Your task to perform on an android device: uninstall "Paramount+ | Peak Streaming" Image 0: 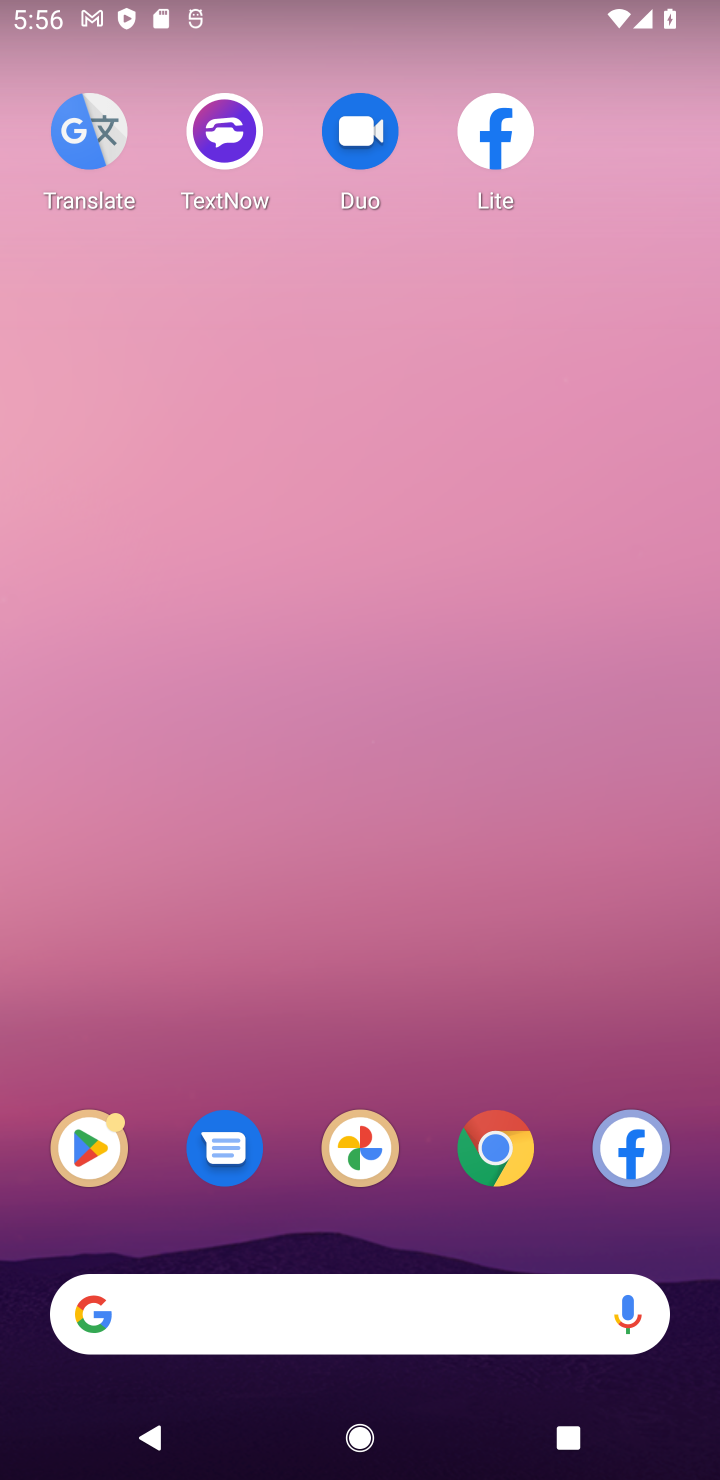
Step 0: drag from (553, 1067) to (204, 113)
Your task to perform on an android device: uninstall "Paramount+ | Peak Streaming" Image 1: 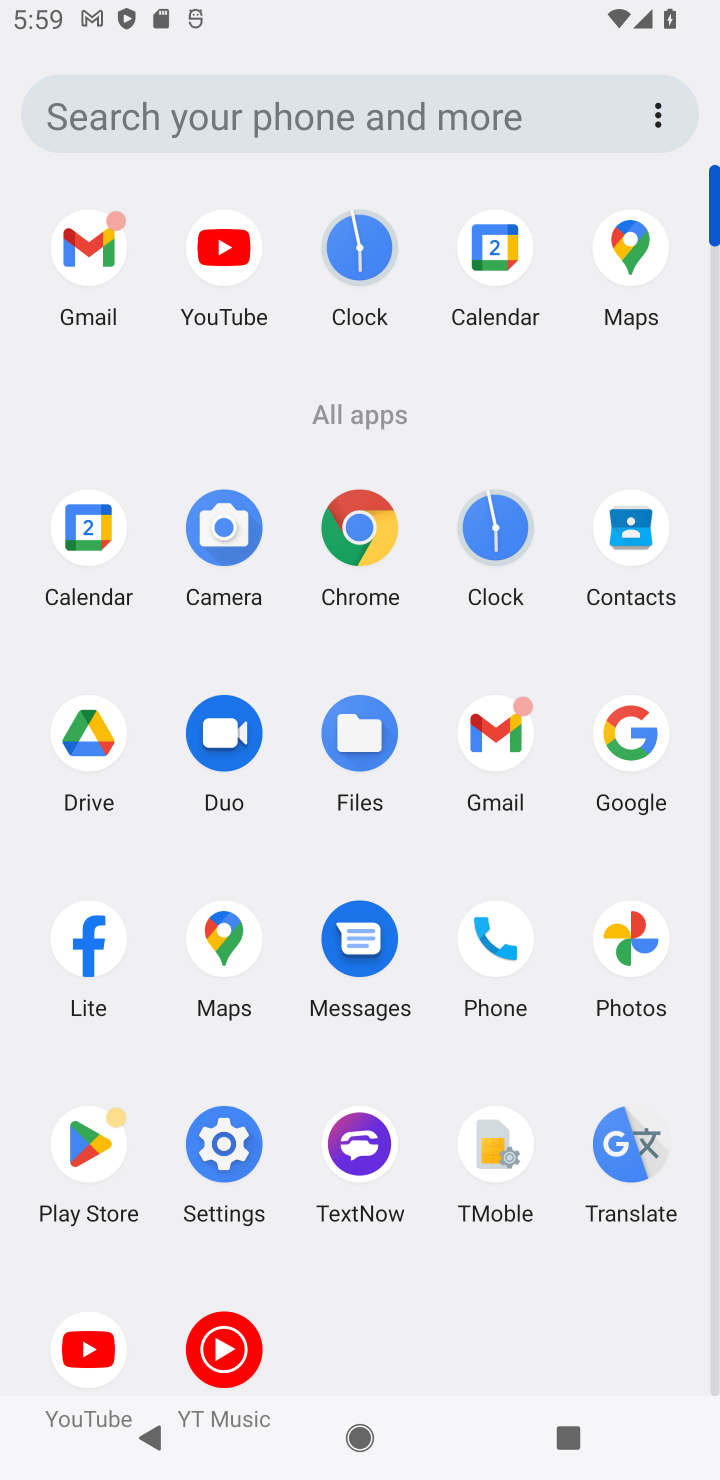
Step 1: click (86, 1125)
Your task to perform on an android device: uninstall "Paramount+ | Peak Streaming" Image 2: 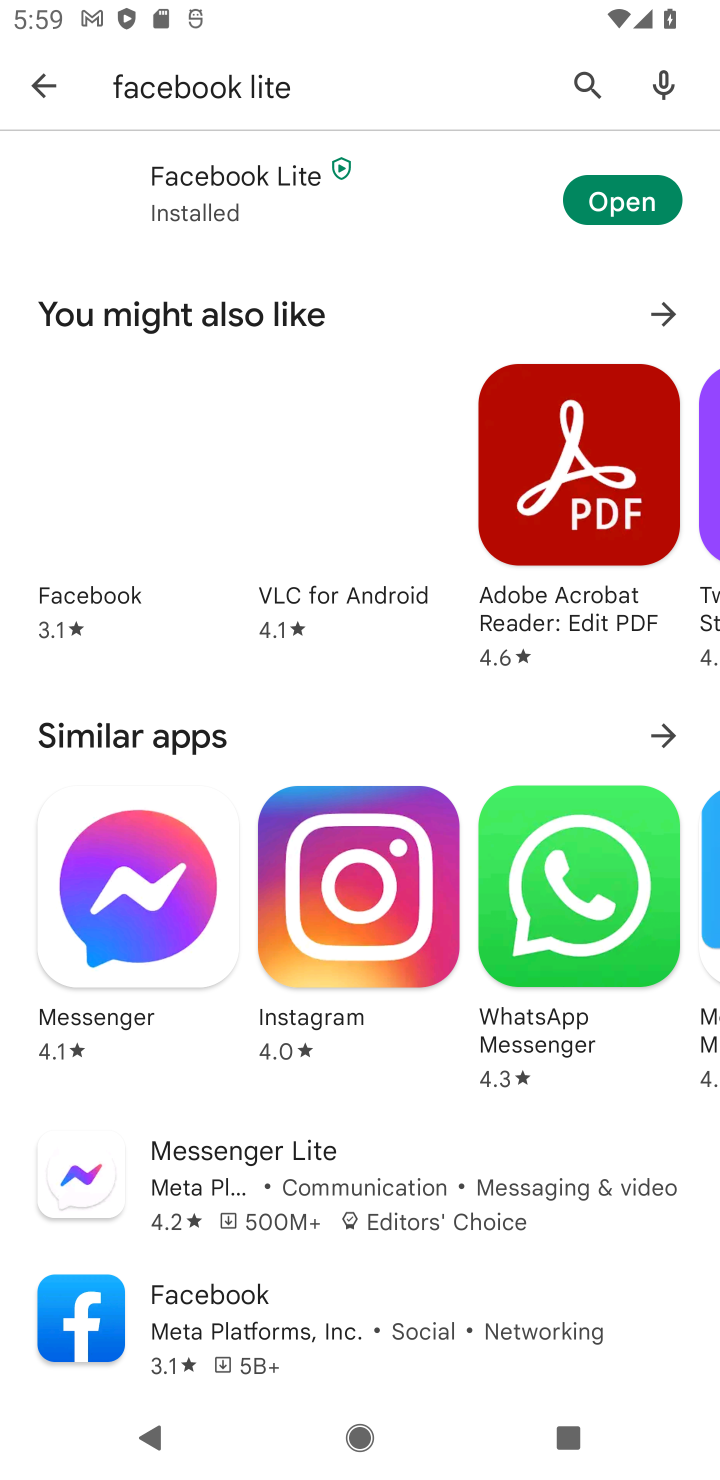
Step 2: press back button
Your task to perform on an android device: uninstall "Paramount+ | Peak Streaming" Image 3: 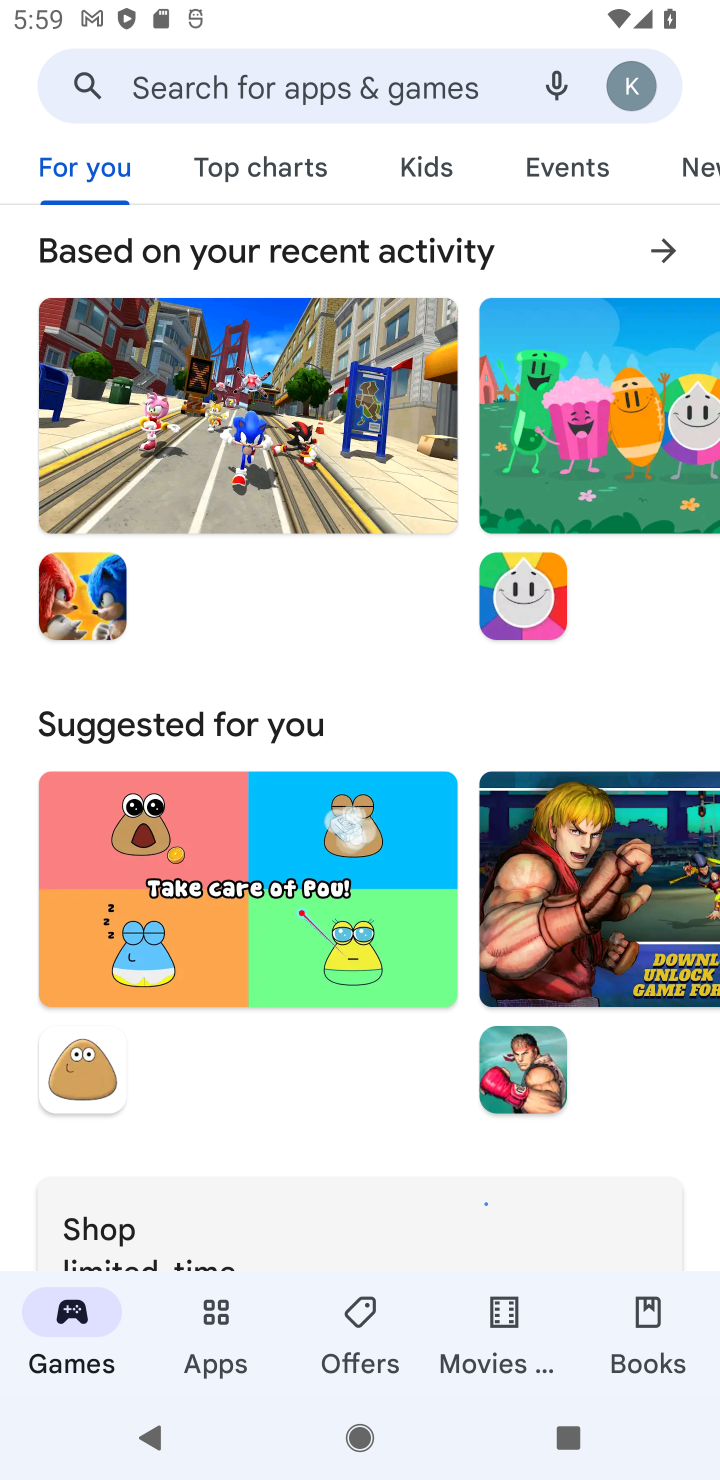
Step 3: click (260, 93)
Your task to perform on an android device: uninstall "Paramount+ | Peak Streaming" Image 4: 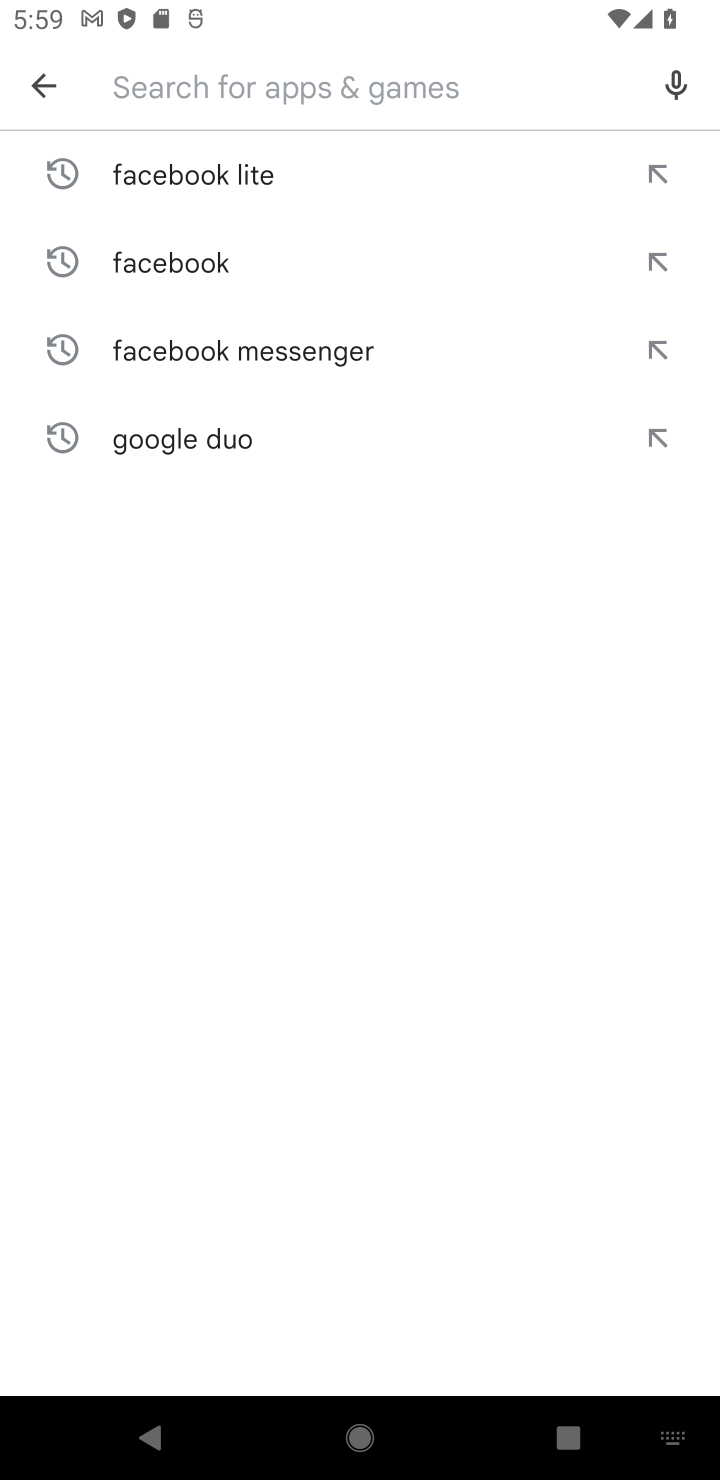
Step 4: type "Paramount+ | Peak Streaming"
Your task to perform on an android device: uninstall "Paramount+ | Peak Streaming" Image 5: 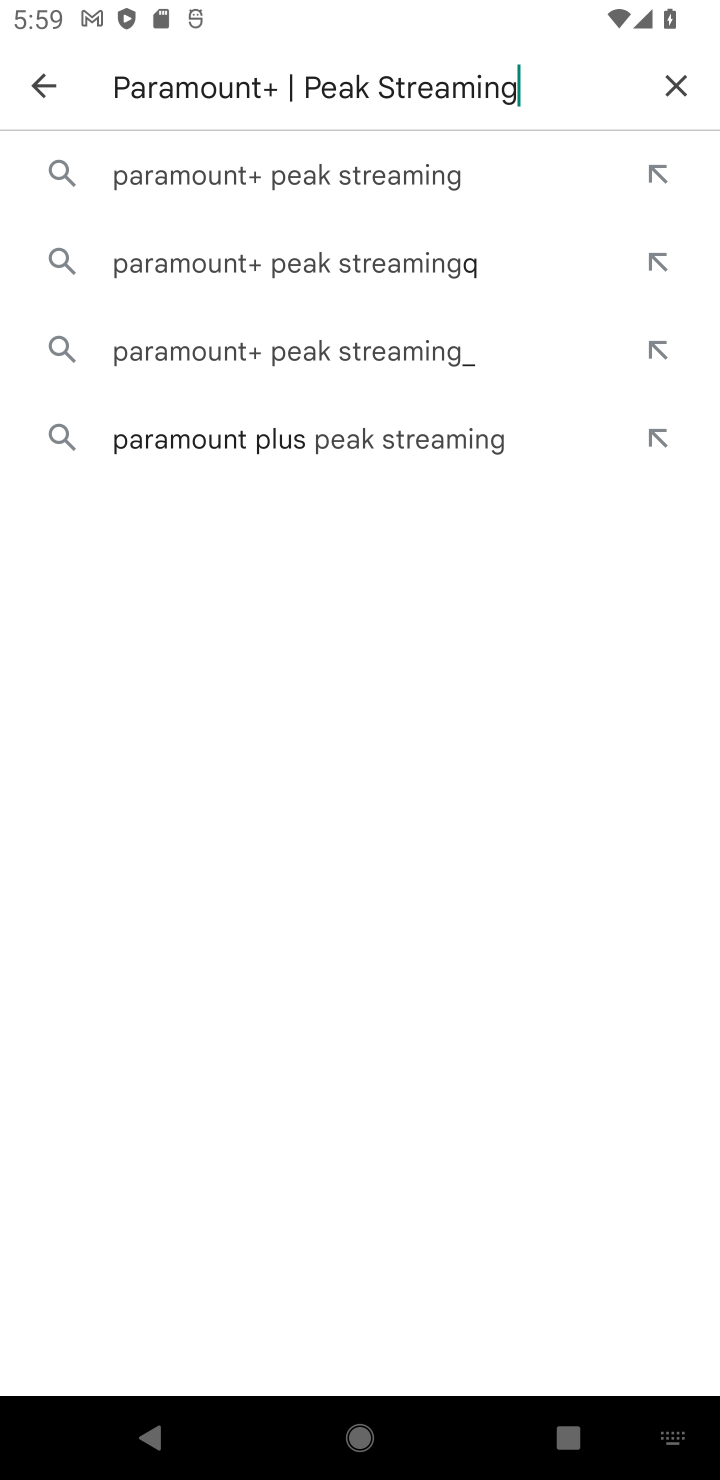
Step 5: click (195, 185)
Your task to perform on an android device: uninstall "Paramount+ | Peak Streaming" Image 6: 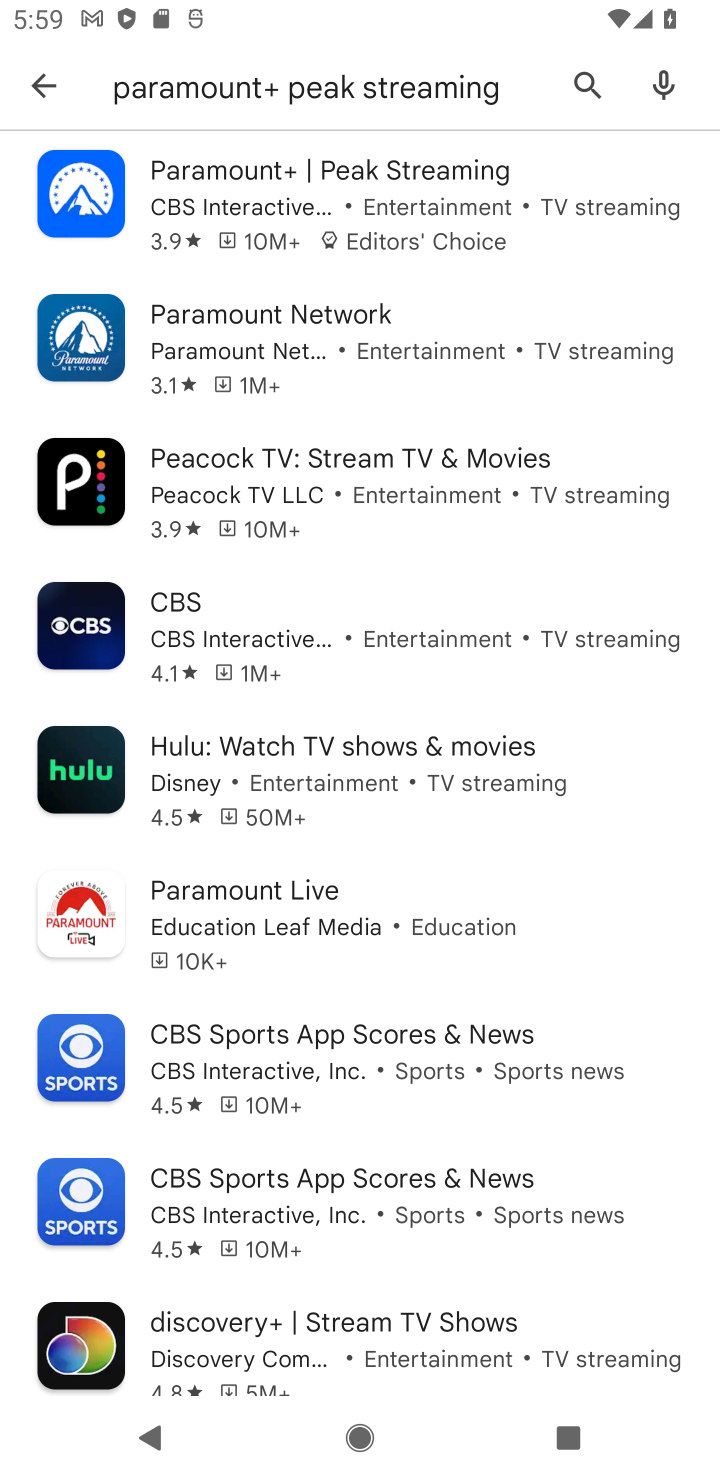
Step 6: click (195, 185)
Your task to perform on an android device: uninstall "Paramount+ | Peak Streaming" Image 7: 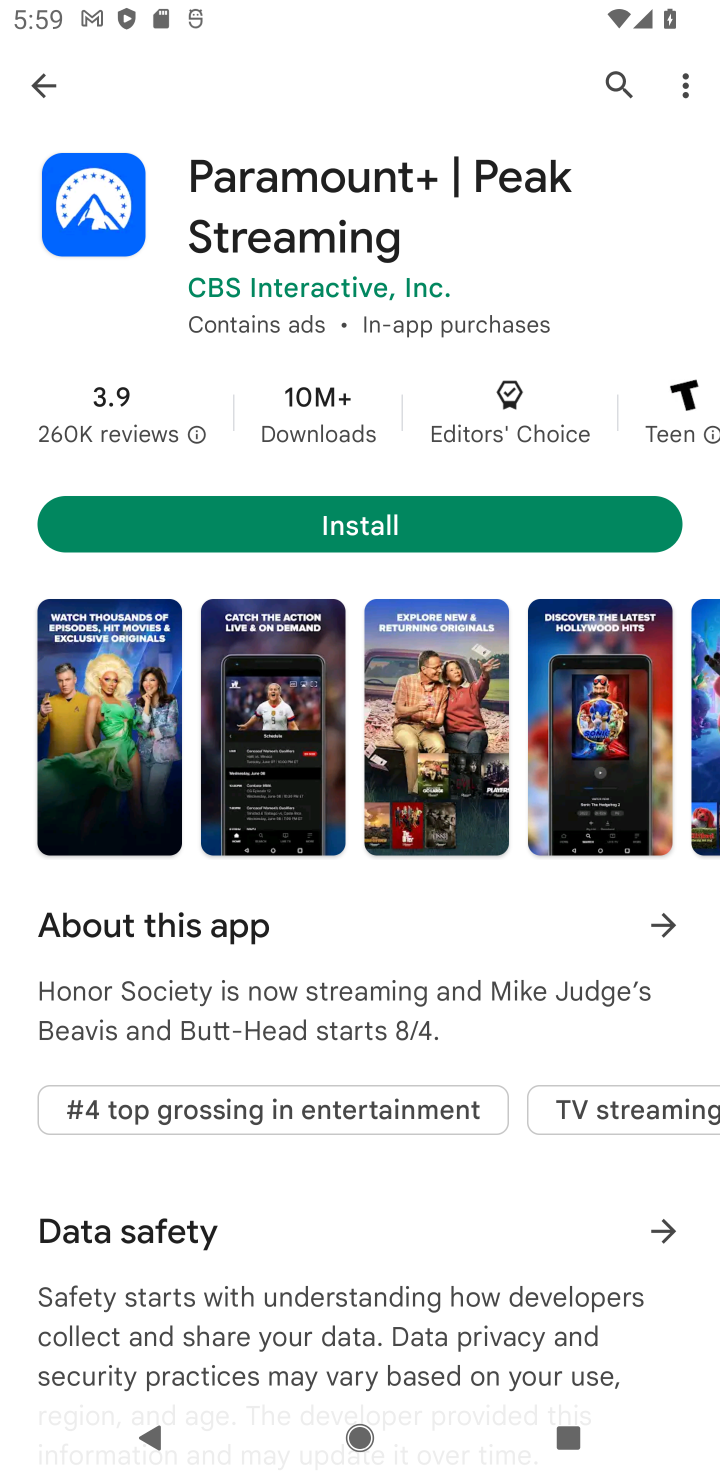
Step 7: task complete